Your task to perform on an android device: Open Yahoo.com Image 0: 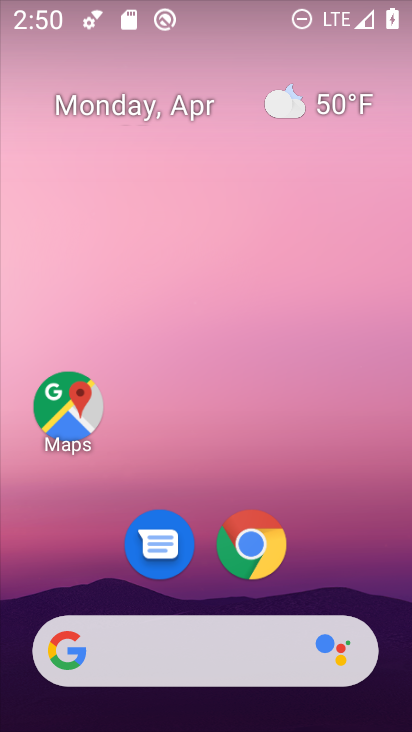
Step 0: click (256, 558)
Your task to perform on an android device: Open Yahoo.com Image 1: 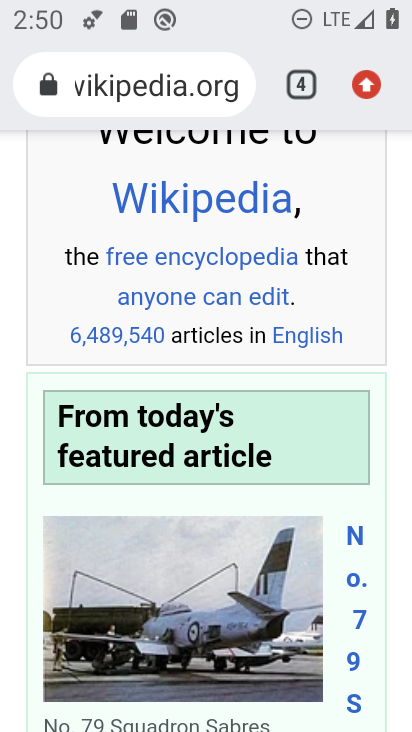
Step 1: click (301, 80)
Your task to perform on an android device: Open Yahoo.com Image 2: 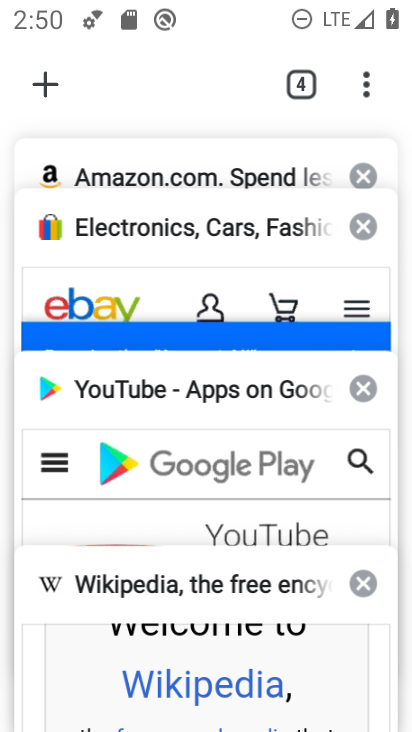
Step 2: click (45, 76)
Your task to perform on an android device: Open Yahoo.com Image 3: 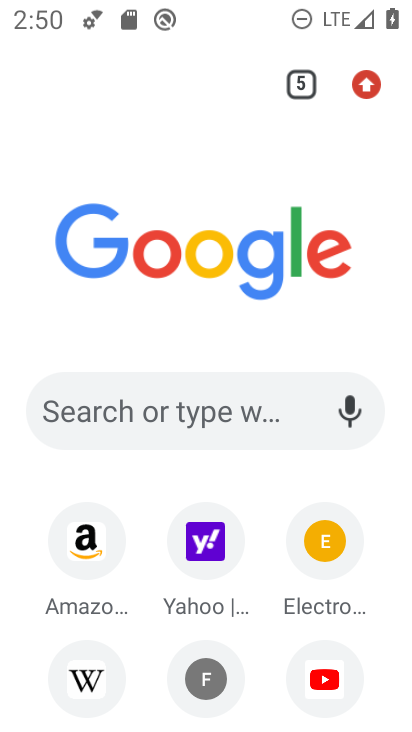
Step 3: click (202, 524)
Your task to perform on an android device: Open Yahoo.com Image 4: 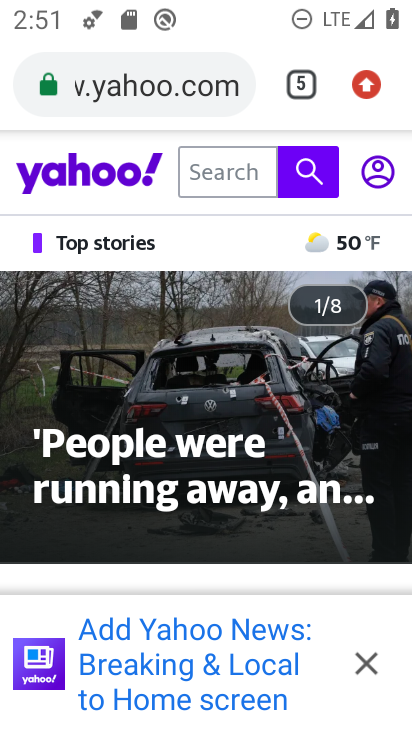
Step 4: task complete